Your task to perform on an android device: Open settings on Google Maps Image 0: 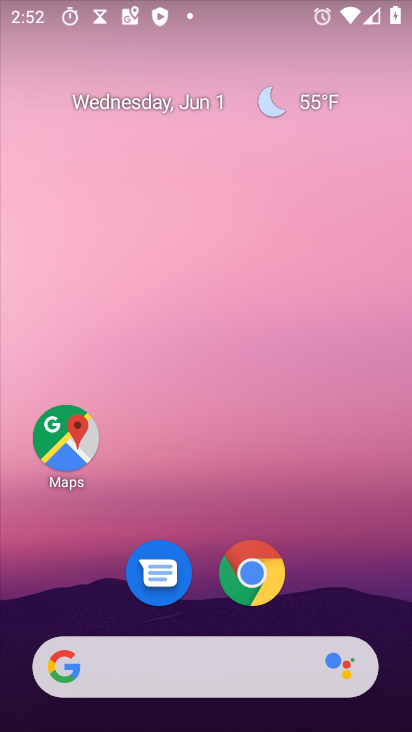
Step 0: drag from (364, 560) to (382, 87)
Your task to perform on an android device: Open settings on Google Maps Image 1: 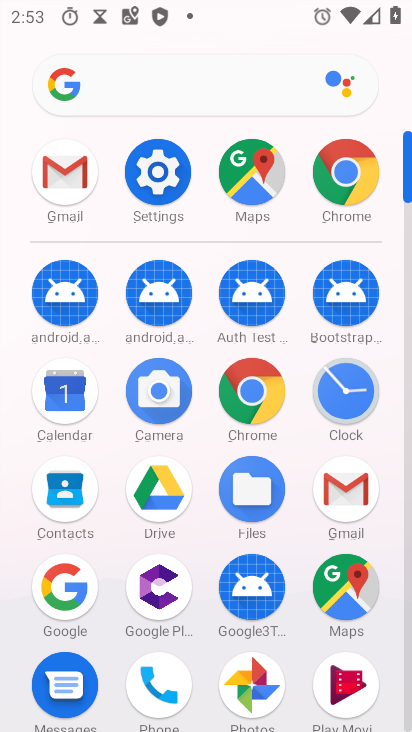
Step 1: click (73, 591)
Your task to perform on an android device: Open settings on Google Maps Image 2: 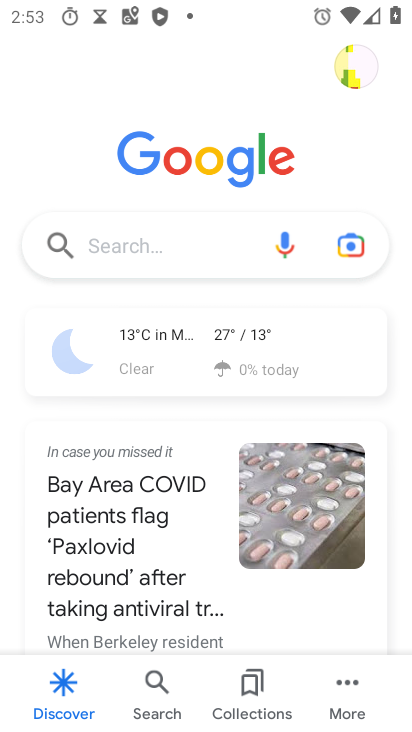
Step 2: drag from (296, 65) to (236, 515)
Your task to perform on an android device: Open settings on Google Maps Image 3: 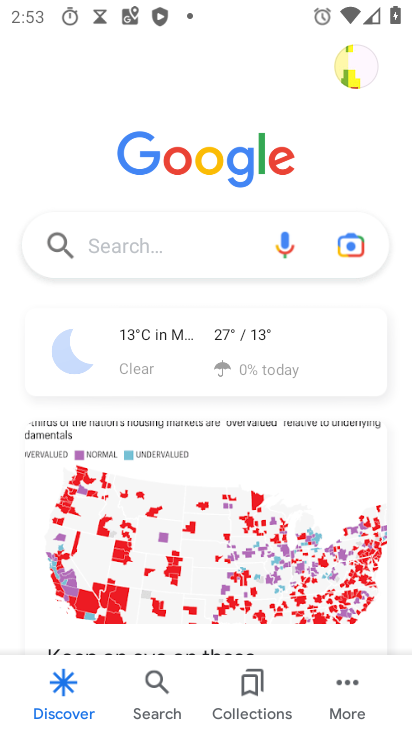
Step 3: drag from (367, 150) to (400, 473)
Your task to perform on an android device: Open settings on Google Maps Image 4: 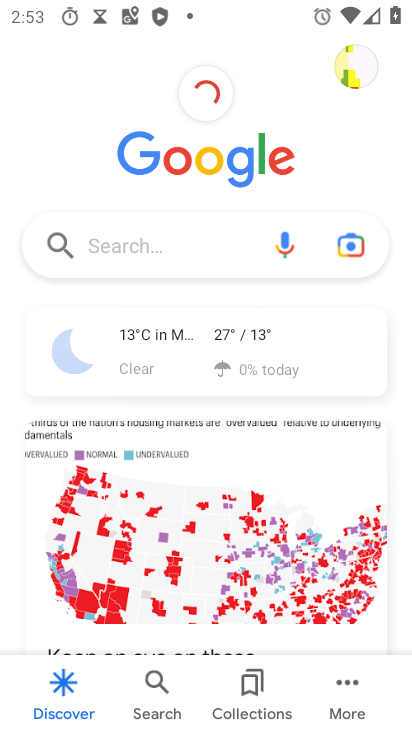
Step 4: drag from (330, 167) to (380, 422)
Your task to perform on an android device: Open settings on Google Maps Image 5: 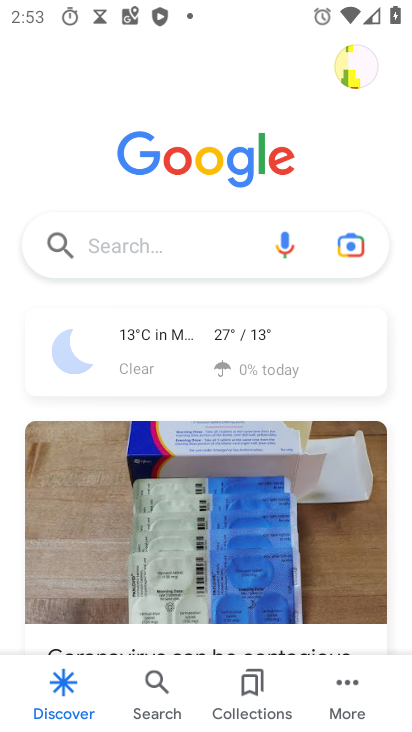
Step 5: click (354, 72)
Your task to perform on an android device: Open settings on Google Maps Image 6: 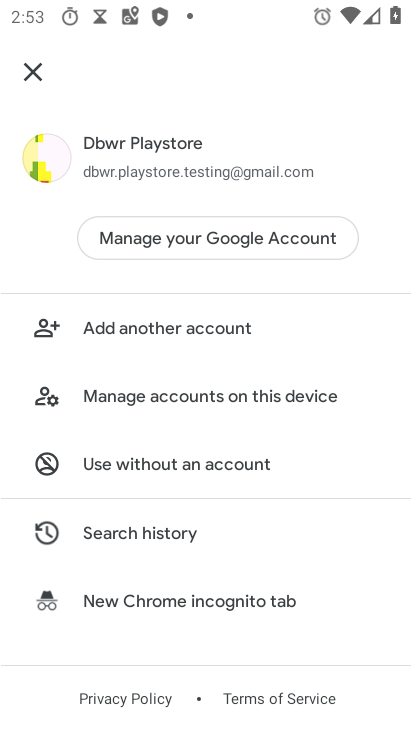
Step 6: task complete